Your task to perform on an android device: Search for "razer blade" on target.com, select the first entry, and add it to the cart. Image 0: 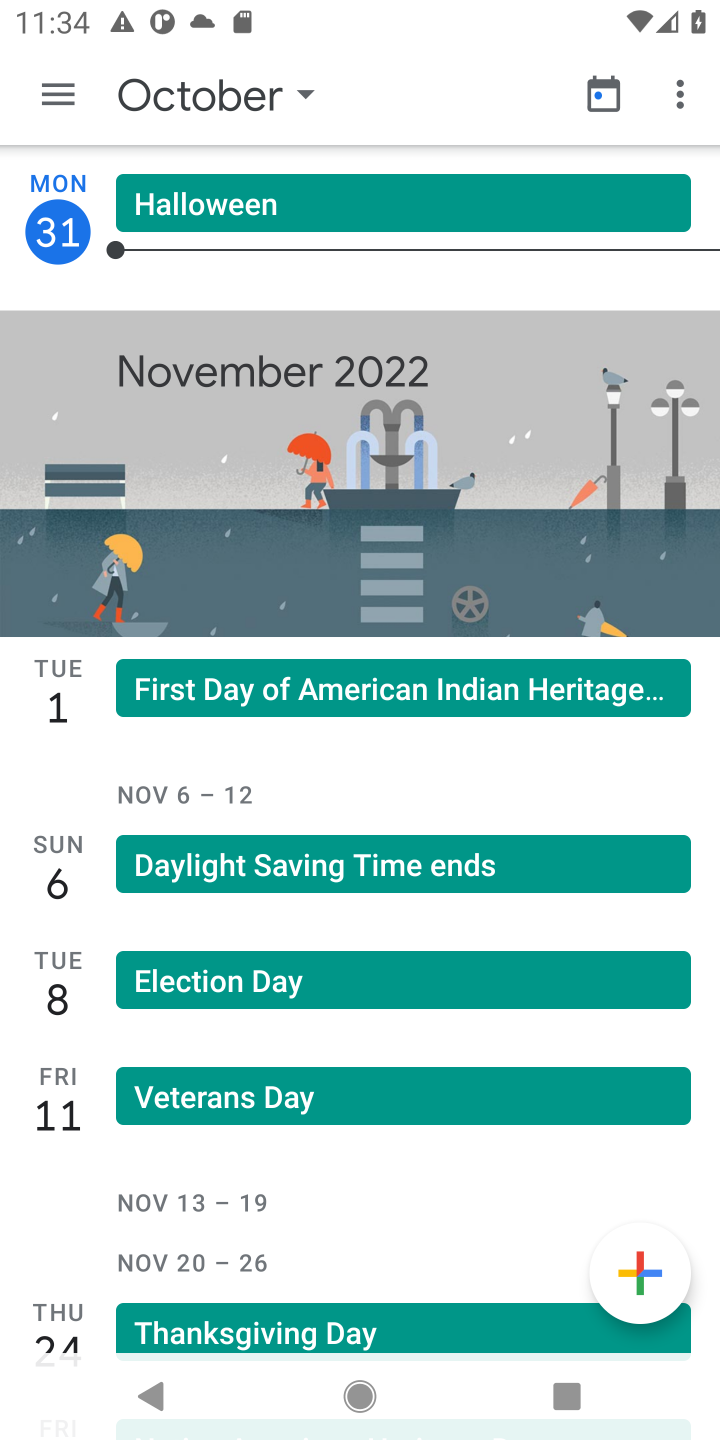
Step 0: press home button
Your task to perform on an android device: Search for "razer blade" on target.com, select the first entry, and add it to the cart. Image 1: 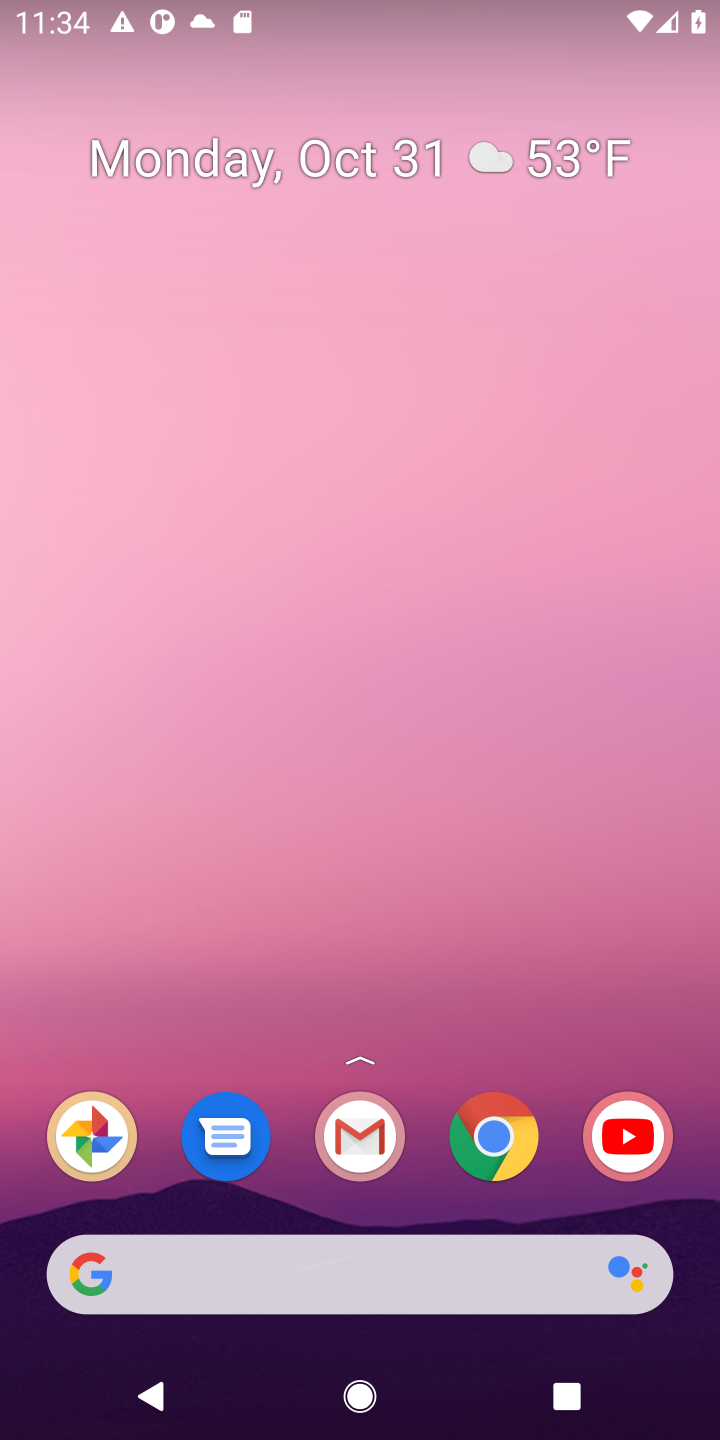
Step 1: click (226, 1275)
Your task to perform on an android device: Search for "razer blade" on target.com, select the first entry, and add it to the cart. Image 2: 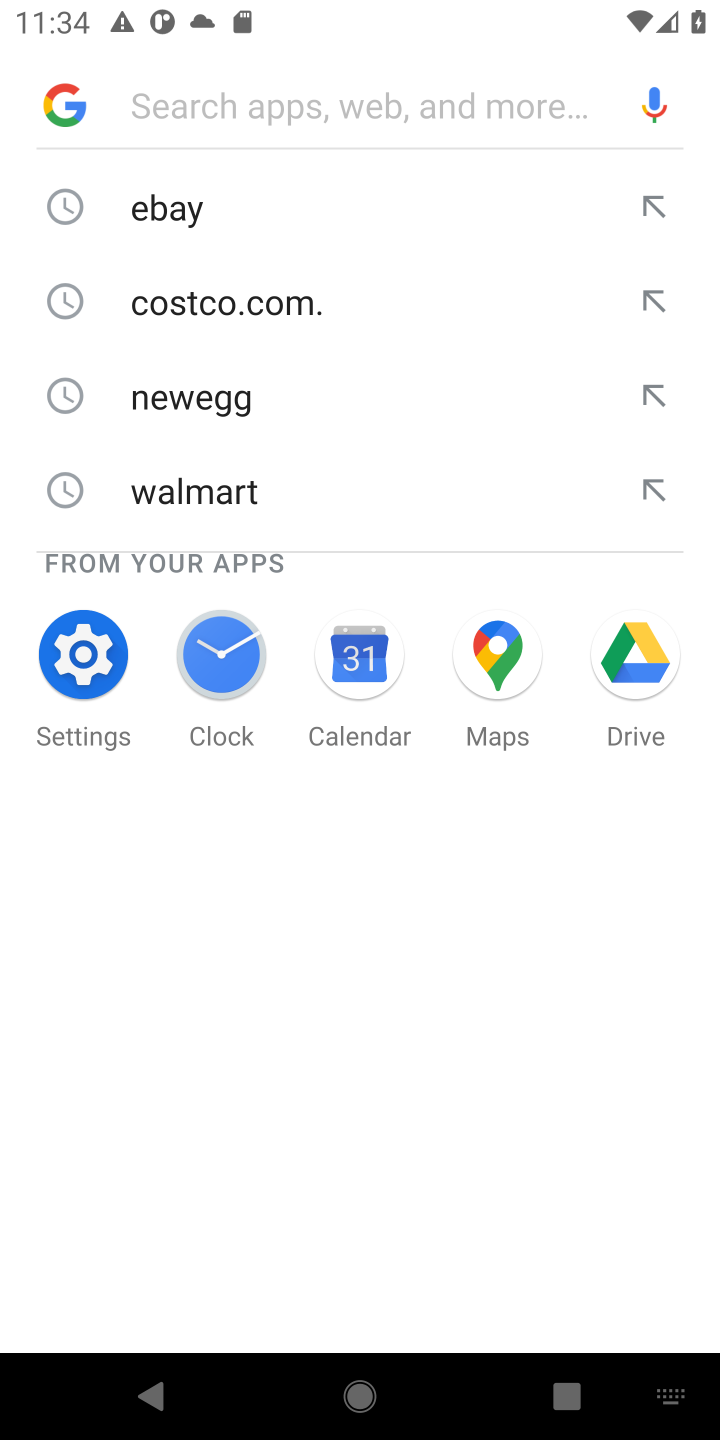
Step 2: press enter
Your task to perform on an android device: Search for "razer blade" on target.com, select the first entry, and add it to the cart. Image 3: 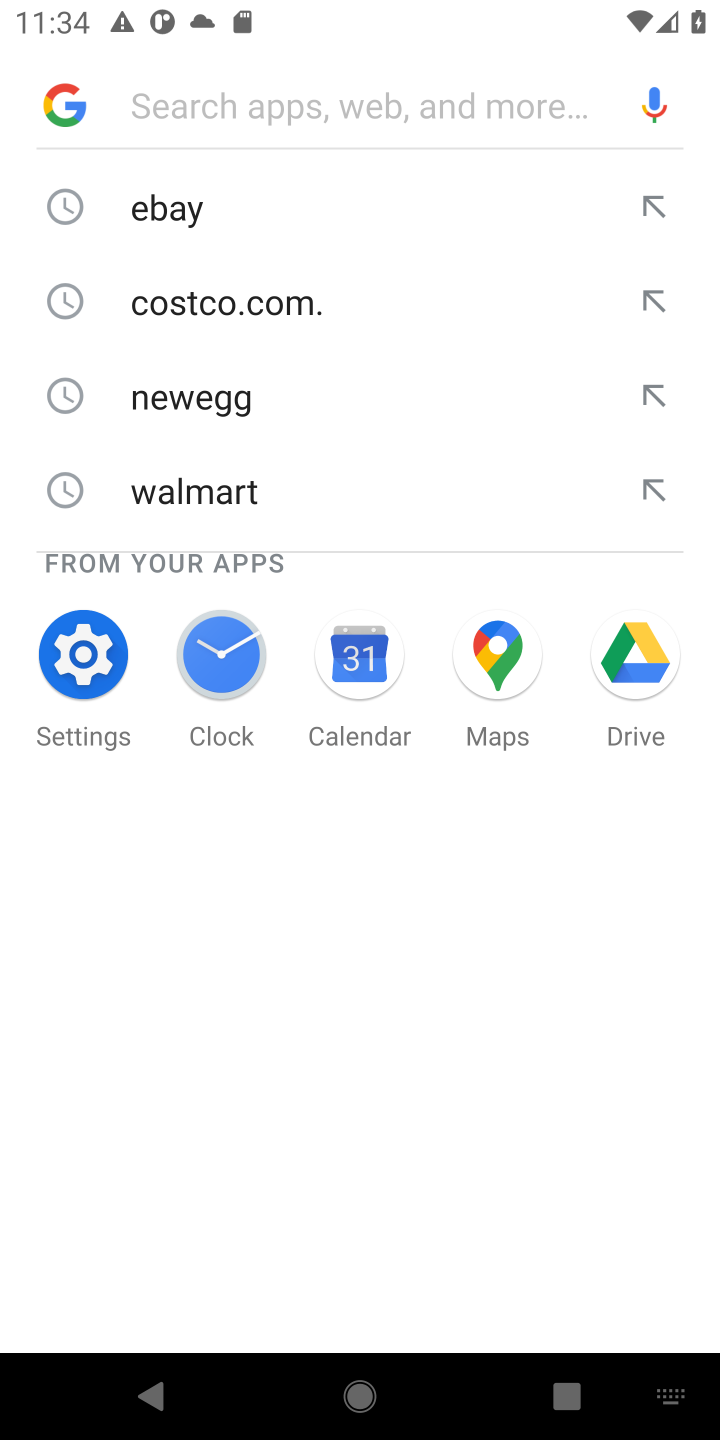
Step 3: type "target.com"
Your task to perform on an android device: Search for "razer blade" on target.com, select the first entry, and add it to the cart. Image 4: 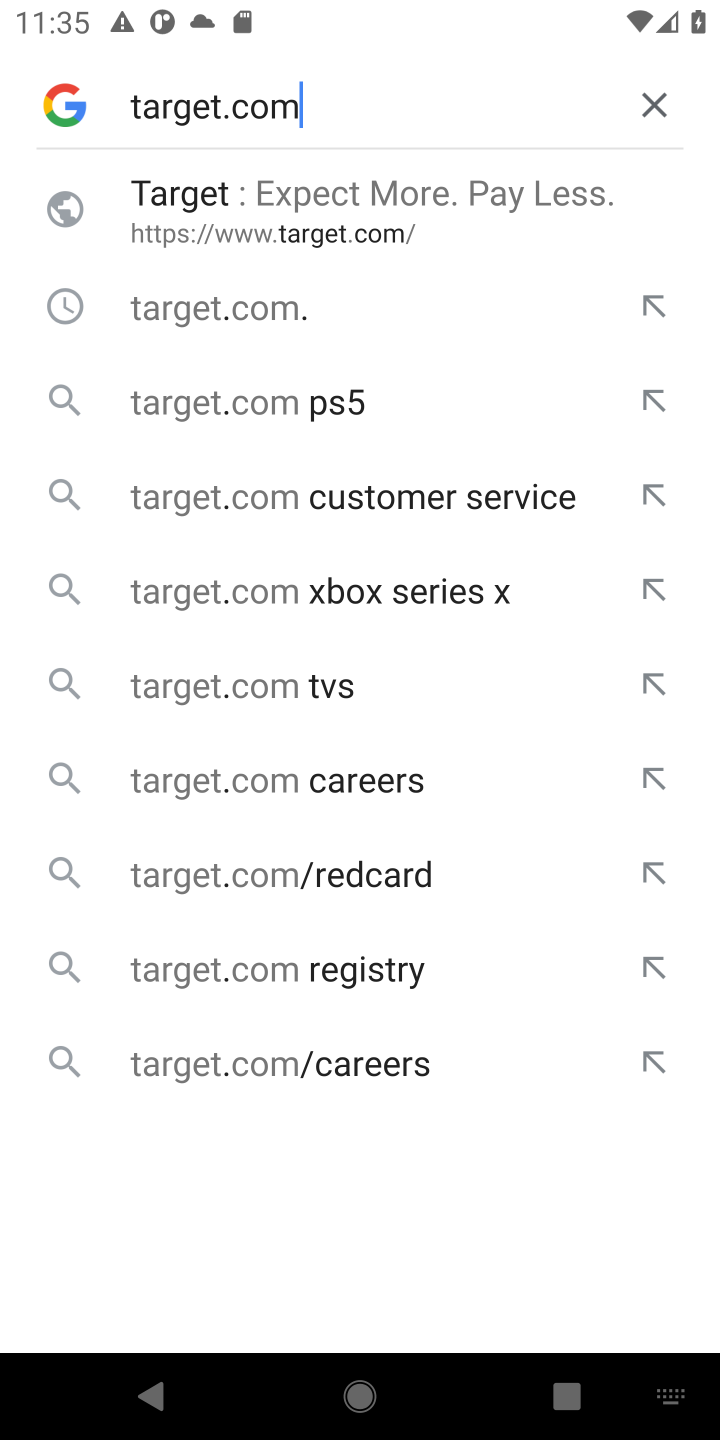
Step 4: press enter
Your task to perform on an android device: Search for "razer blade" on target.com, select the first entry, and add it to the cart. Image 5: 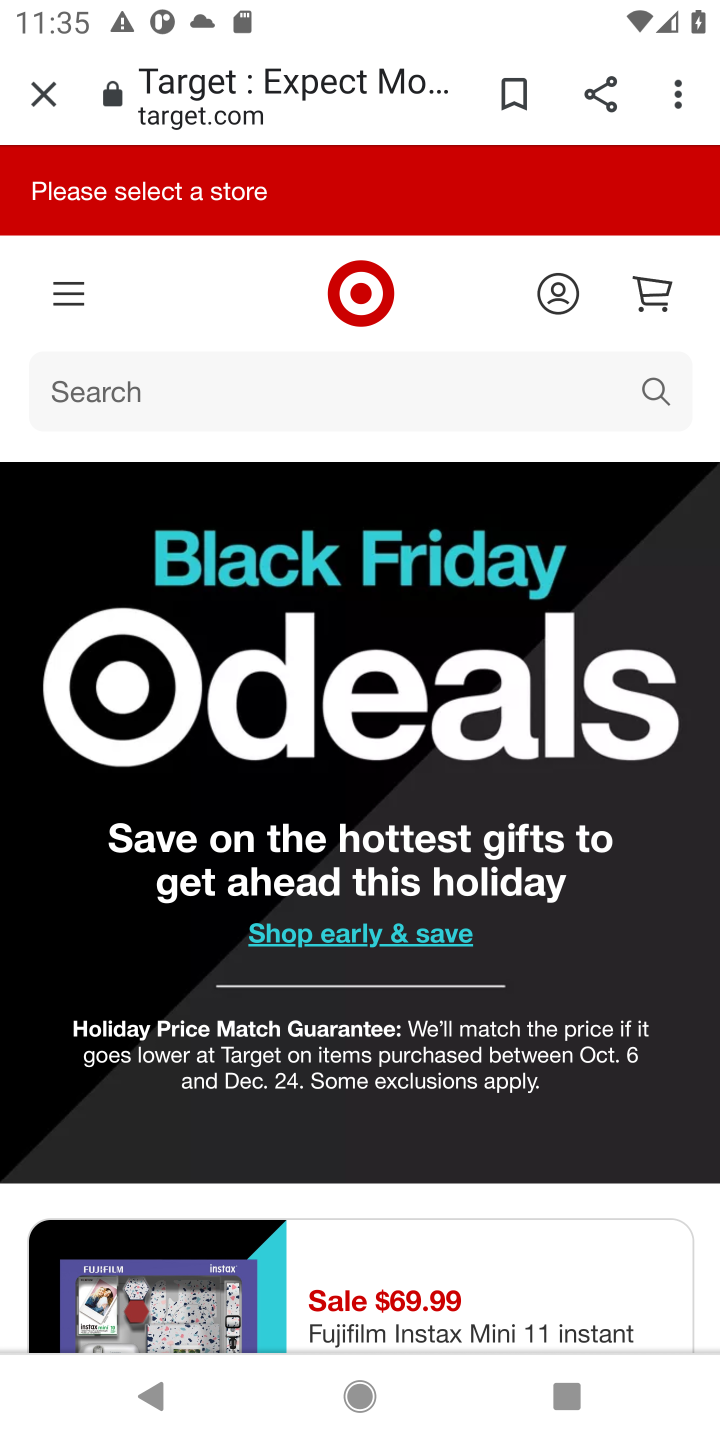
Step 5: click (124, 374)
Your task to perform on an android device: Search for "razer blade" on target.com, select the first entry, and add it to the cart. Image 6: 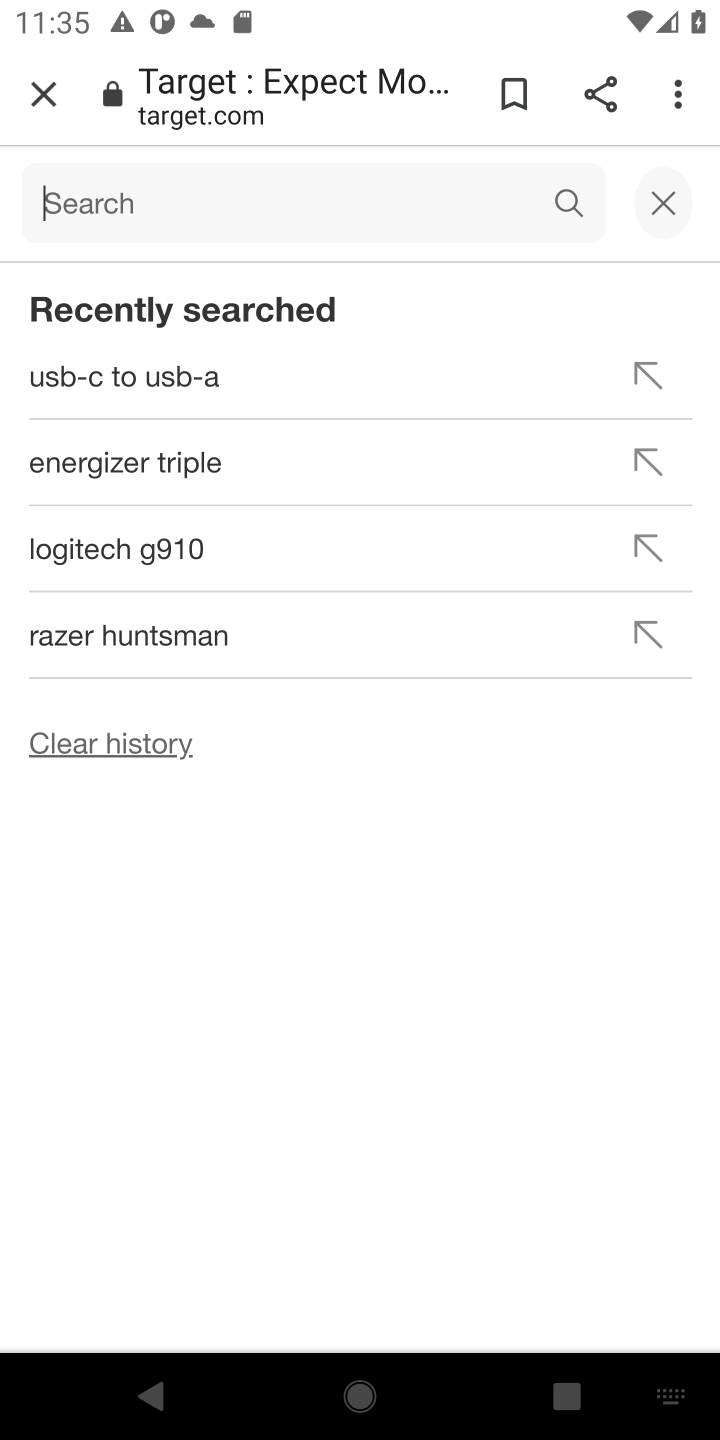
Step 6: type "razer blade"
Your task to perform on an android device: Search for "razer blade" on target.com, select the first entry, and add it to the cart. Image 7: 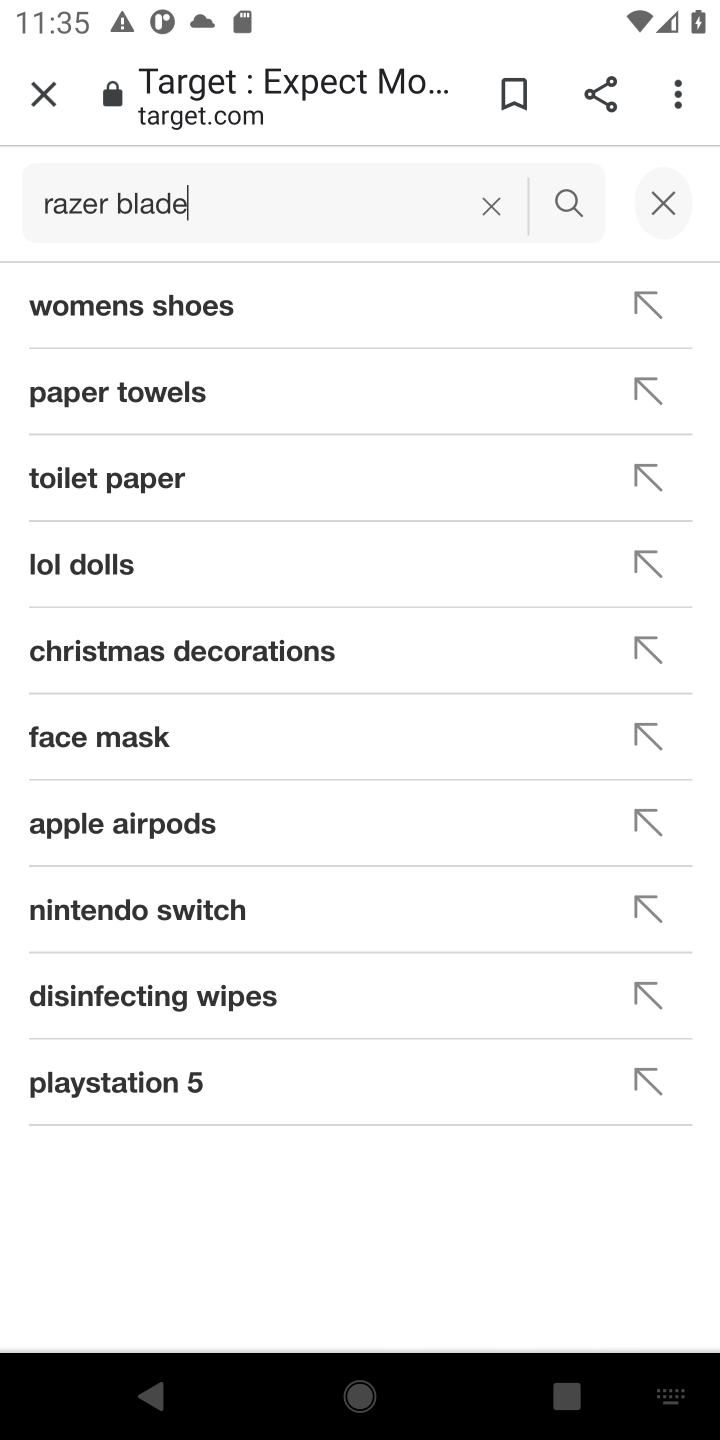
Step 7: press enter
Your task to perform on an android device: Search for "razer blade" on target.com, select the first entry, and add it to the cart. Image 8: 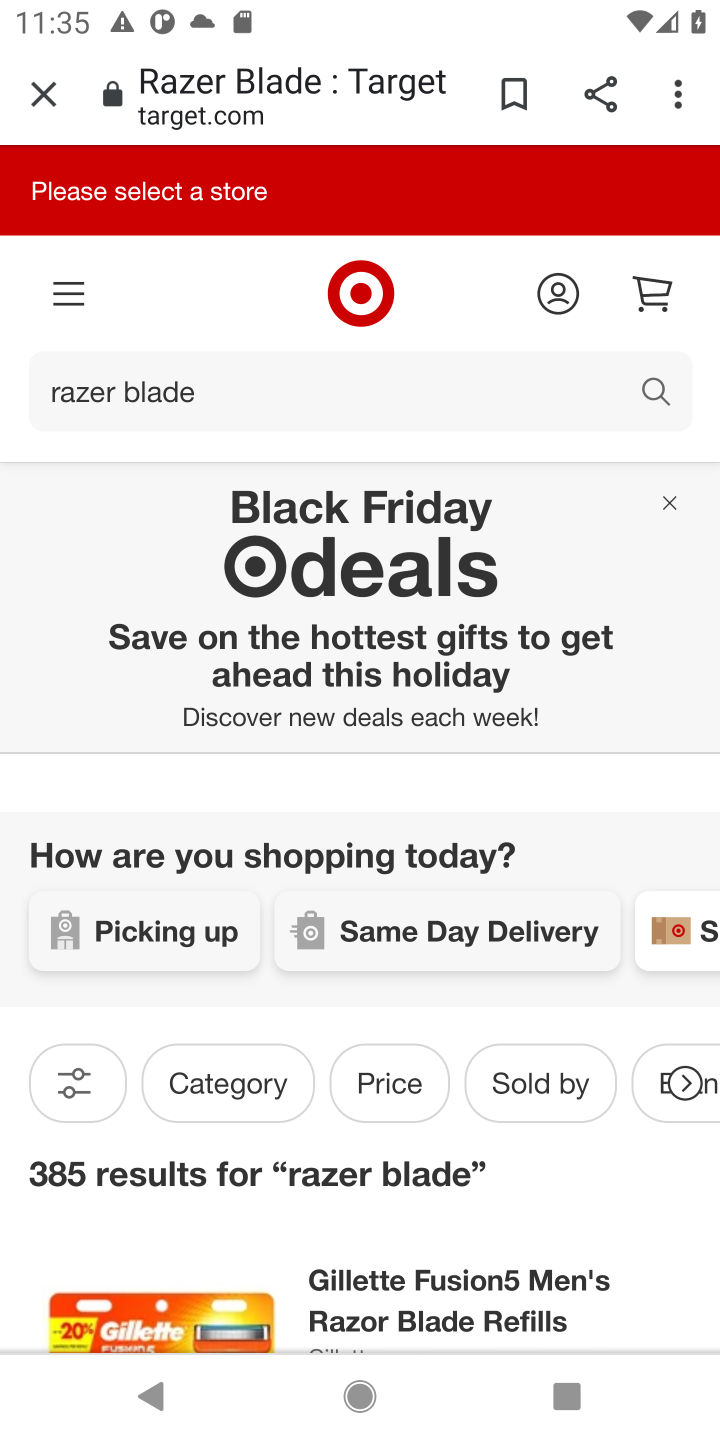
Step 8: drag from (484, 1143) to (492, 629)
Your task to perform on an android device: Search for "razer blade" on target.com, select the first entry, and add it to the cart. Image 9: 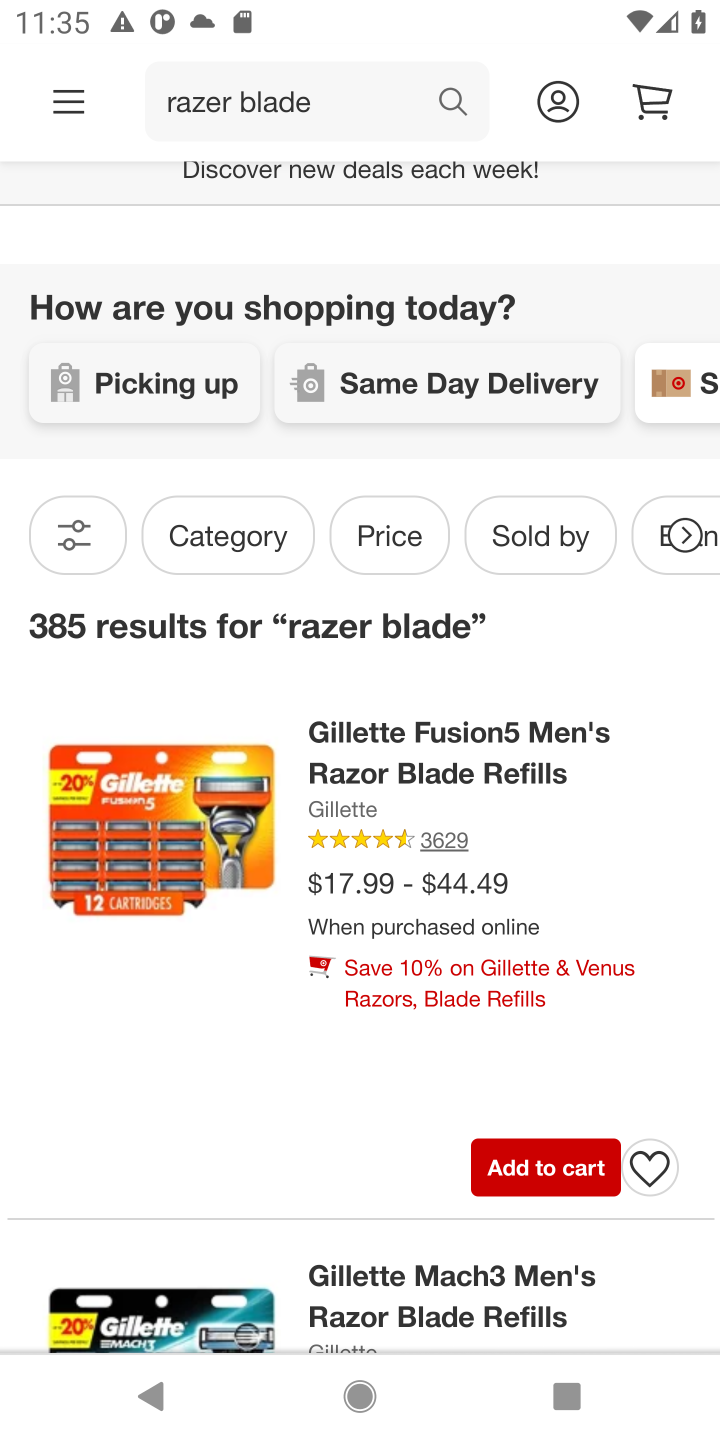
Step 9: drag from (398, 1099) to (410, 860)
Your task to perform on an android device: Search for "razer blade" on target.com, select the first entry, and add it to the cart. Image 10: 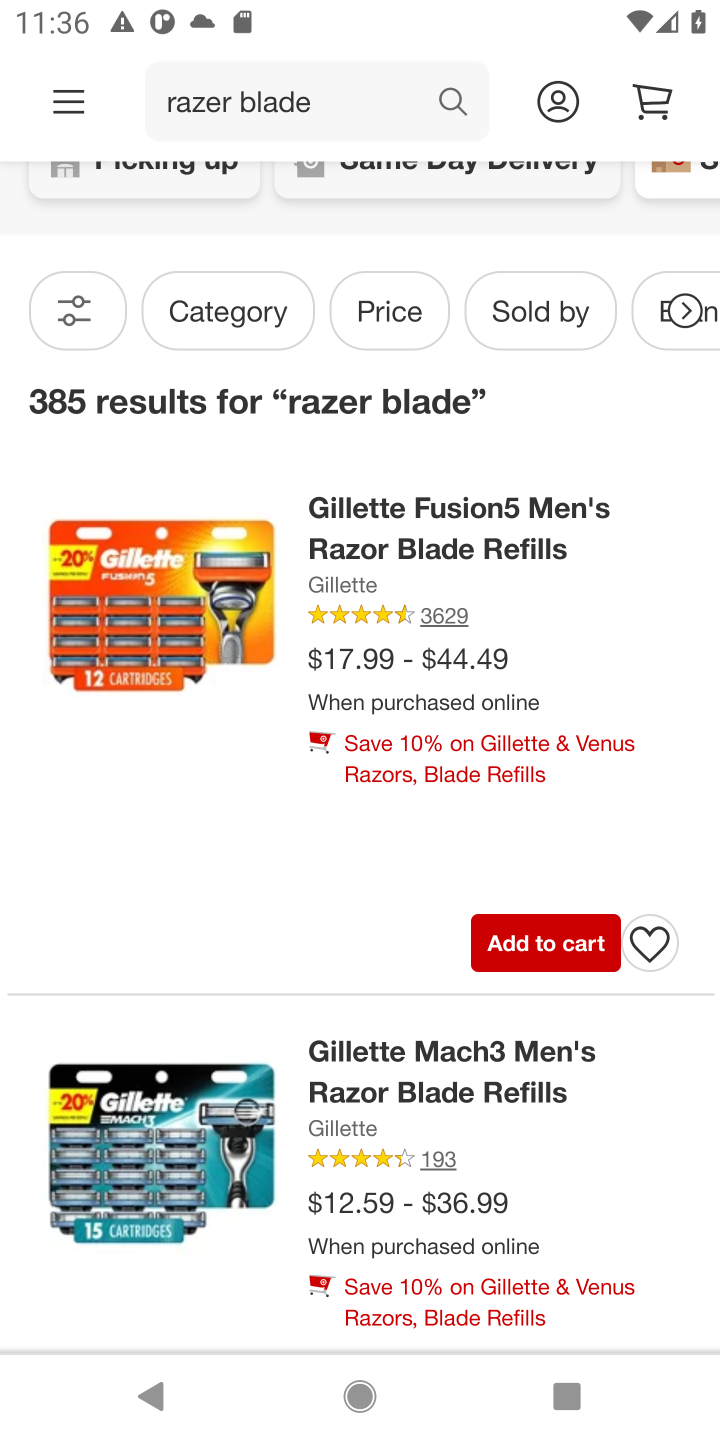
Step 10: click (533, 940)
Your task to perform on an android device: Search for "razer blade" on target.com, select the first entry, and add it to the cart. Image 11: 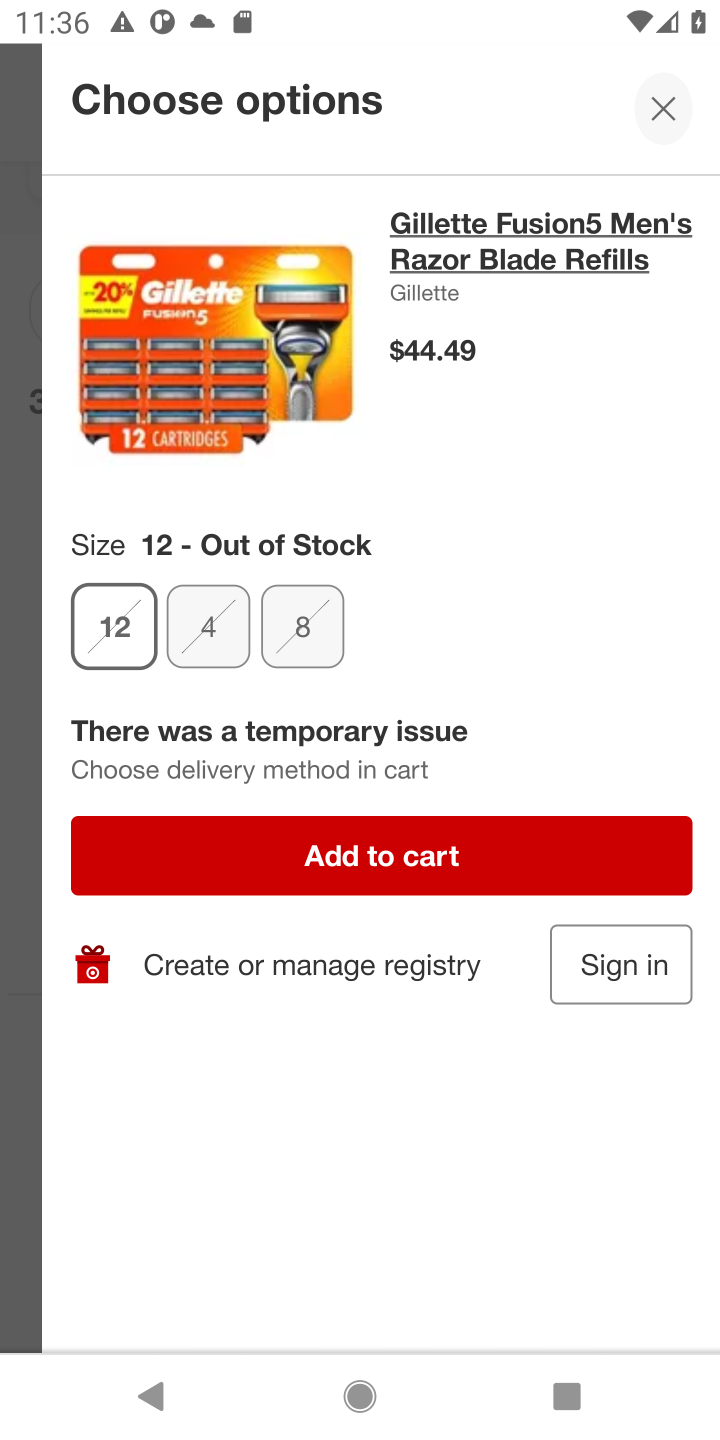
Step 11: click (399, 860)
Your task to perform on an android device: Search for "razer blade" on target.com, select the first entry, and add it to the cart. Image 12: 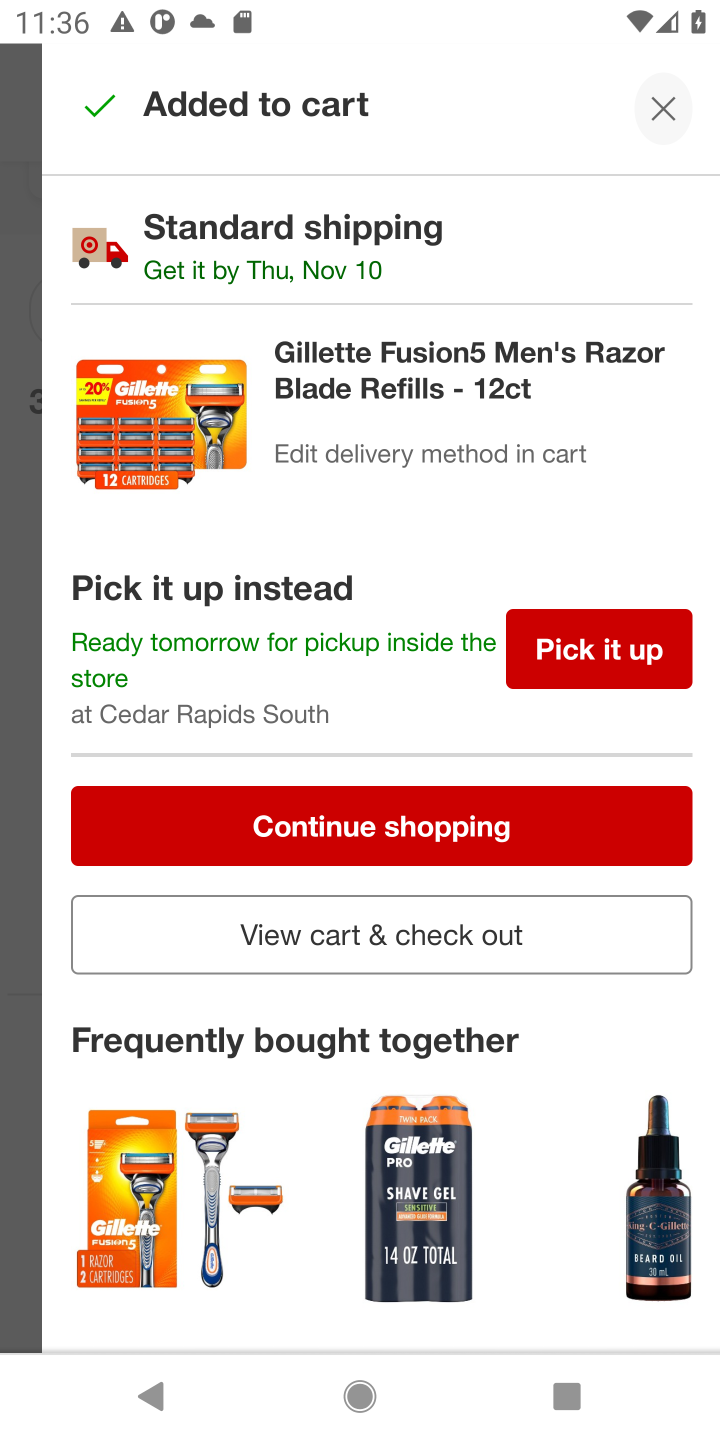
Step 12: task complete